Your task to perform on an android device: search for starred emails in the gmail app Image 0: 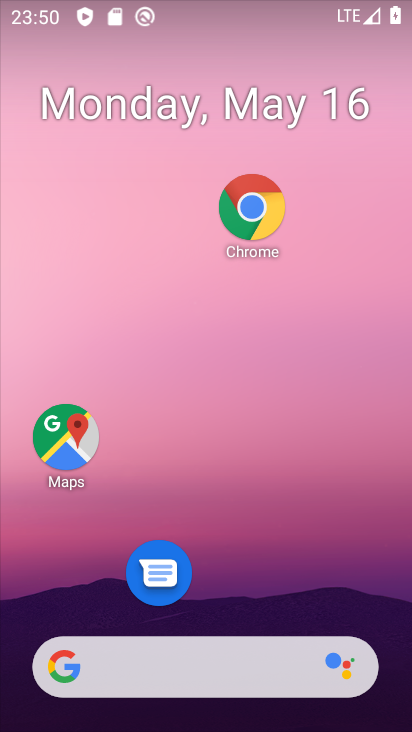
Step 0: drag from (275, 692) to (234, 182)
Your task to perform on an android device: search for starred emails in the gmail app Image 1: 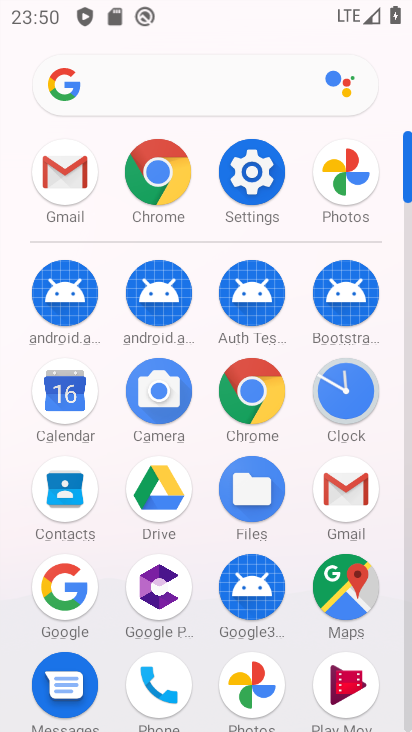
Step 1: click (360, 493)
Your task to perform on an android device: search for starred emails in the gmail app Image 2: 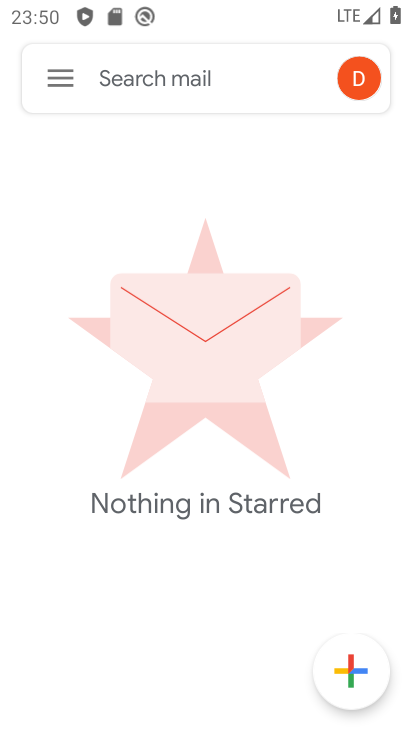
Step 2: click (58, 87)
Your task to perform on an android device: search for starred emails in the gmail app Image 3: 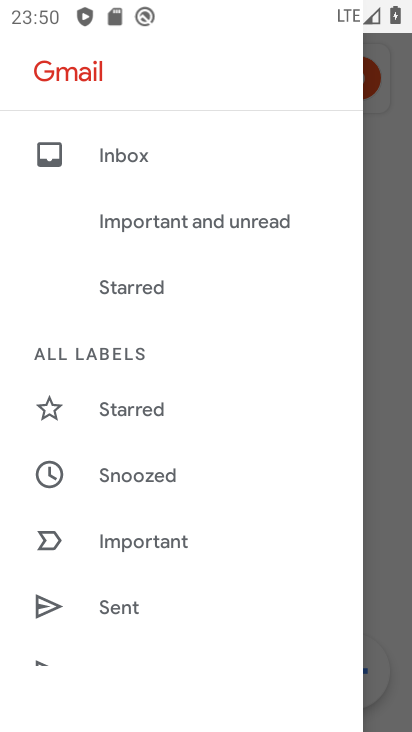
Step 3: click (173, 405)
Your task to perform on an android device: search for starred emails in the gmail app Image 4: 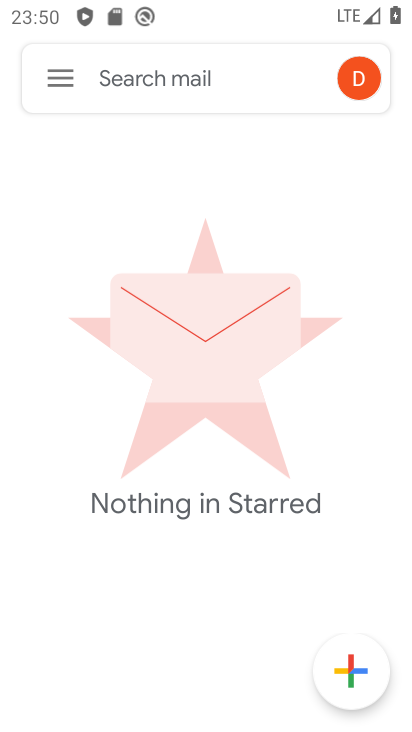
Step 4: task complete